Your task to perform on an android device: turn off notifications in google photos Image 0: 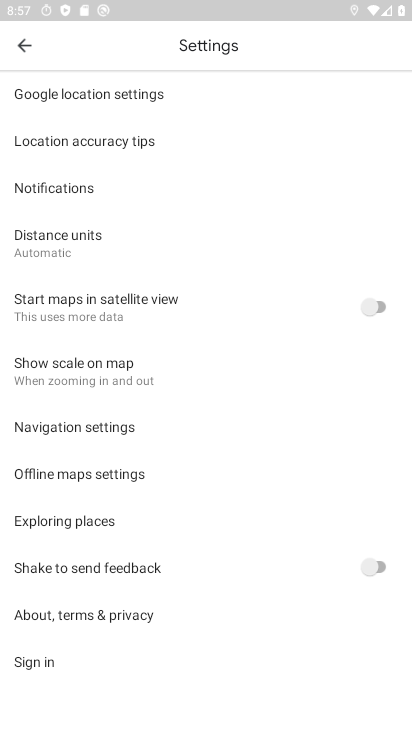
Step 0: press home button
Your task to perform on an android device: turn off notifications in google photos Image 1: 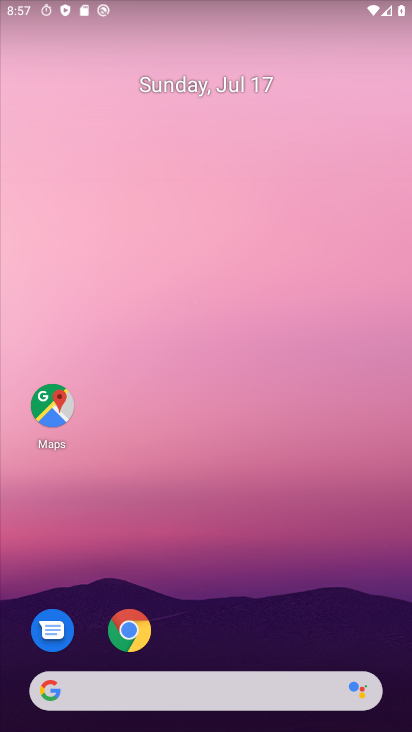
Step 1: drag from (30, 671) to (110, 92)
Your task to perform on an android device: turn off notifications in google photos Image 2: 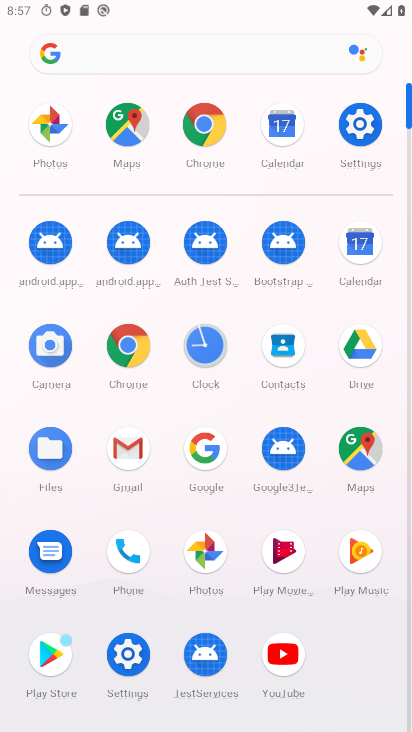
Step 2: click (191, 552)
Your task to perform on an android device: turn off notifications in google photos Image 3: 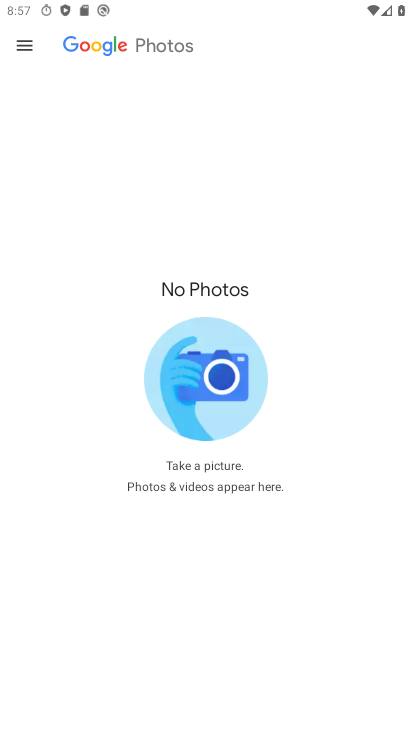
Step 3: click (22, 37)
Your task to perform on an android device: turn off notifications in google photos Image 4: 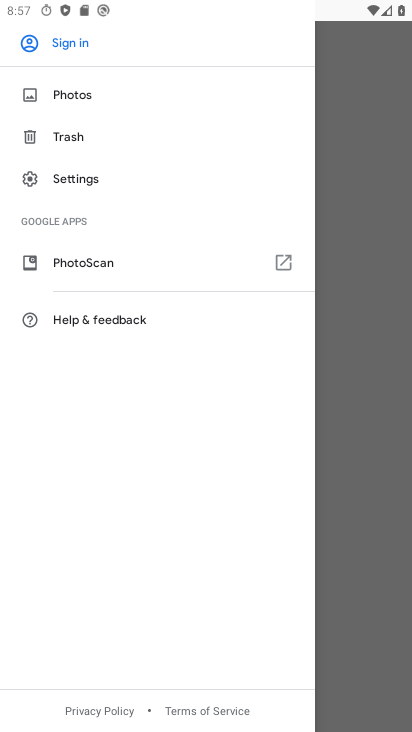
Step 4: click (88, 177)
Your task to perform on an android device: turn off notifications in google photos Image 5: 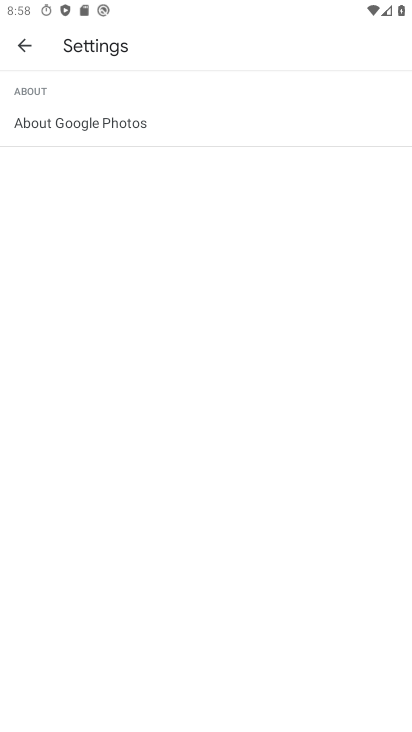
Step 5: click (32, 52)
Your task to perform on an android device: turn off notifications in google photos Image 6: 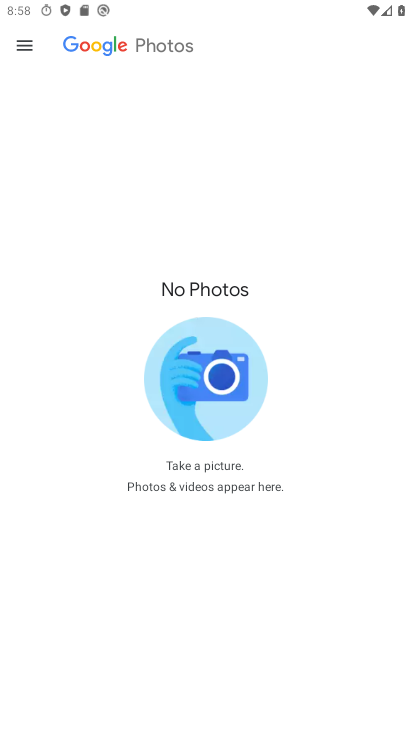
Step 6: click (27, 37)
Your task to perform on an android device: turn off notifications in google photos Image 7: 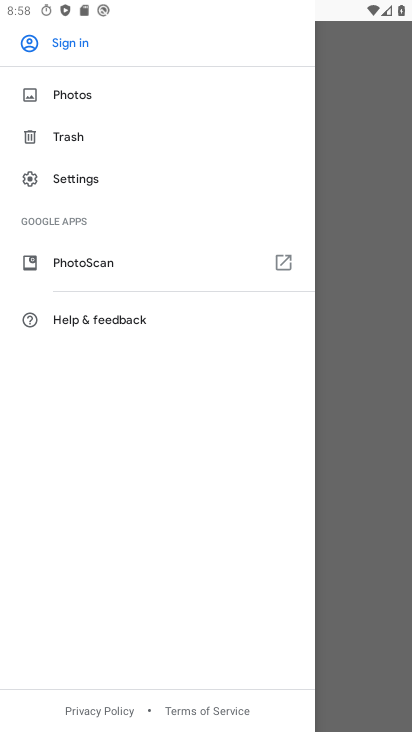
Step 7: click (67, 183)
Your task to perform on an android device: turn off notifications in google photos Image 8: 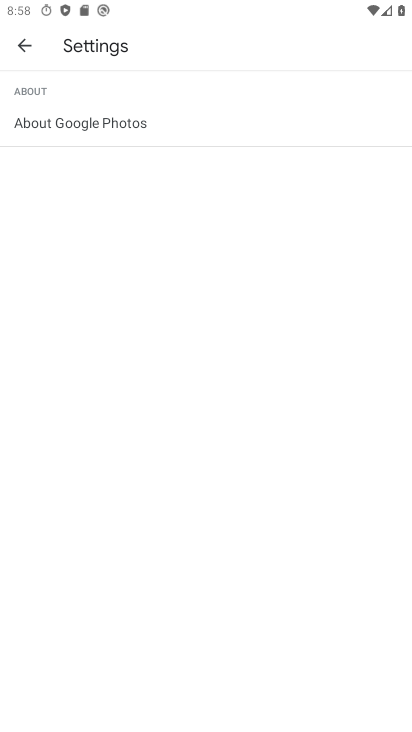
Step 8: task complete